Your task to perform on an android device: make emails show in primary in the gmail app Image 0: 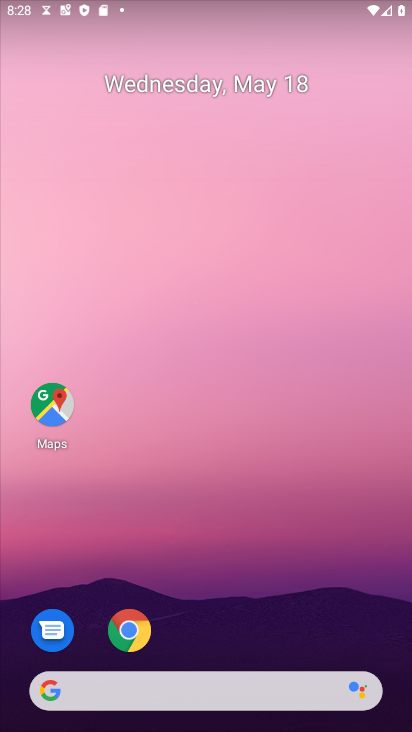
Step 0: press home button
Your task to perform on an android device: make emails show in primary in the gmail app Image 1: 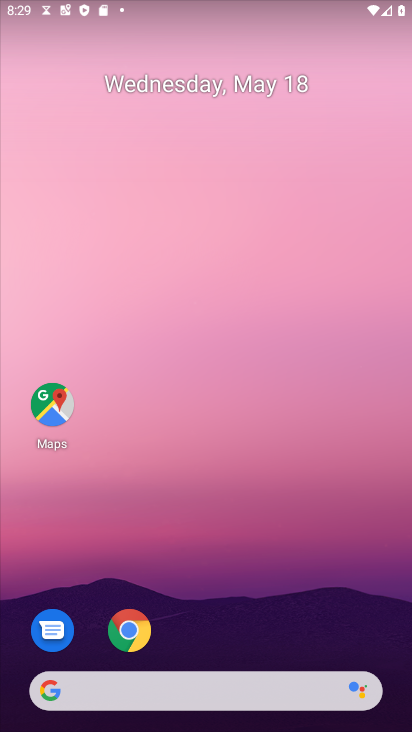
Step 1: drag from (160, 692) to (310, 183)
Your task to perform on an android device: make emails show in primary in the gmail app Image 2: 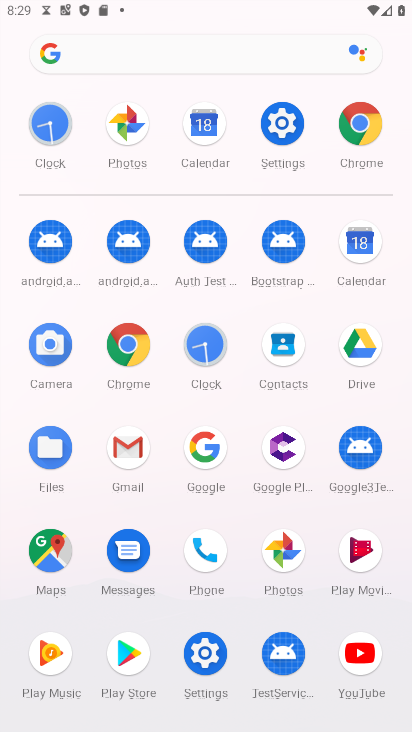
Step 2: click (128, 451)
Your task to perform on an android device: make emails show in primary in the gmail app Image 3: 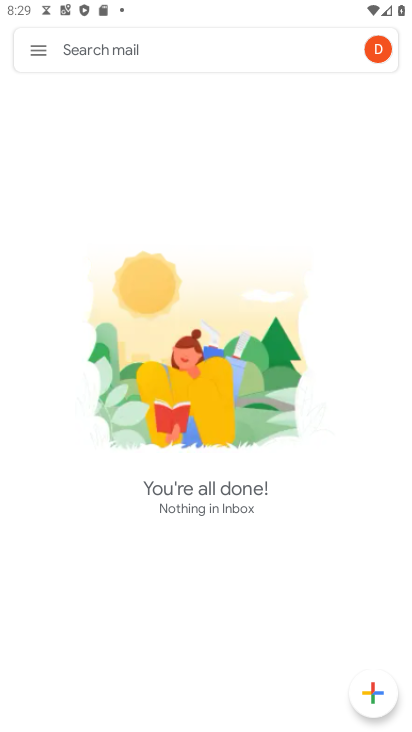
Step 3: click (40, 47)
Your task to perform on an android device: make emails show in primary in the gmail app Image 4: 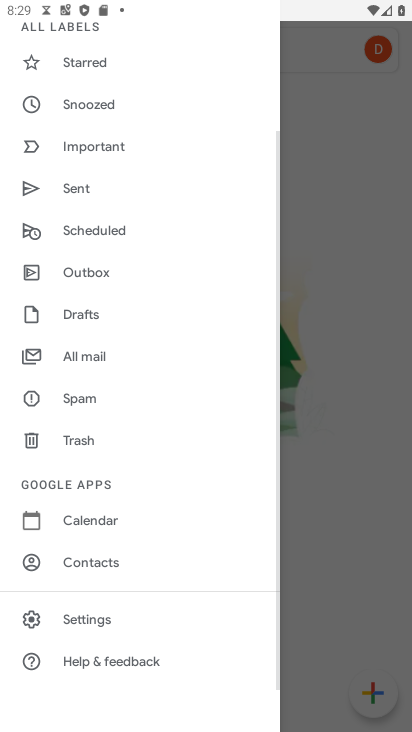
Step 4: click (101, 618)
Your task to perform on an android device: make emails show in primary in the gmail app Image 5: 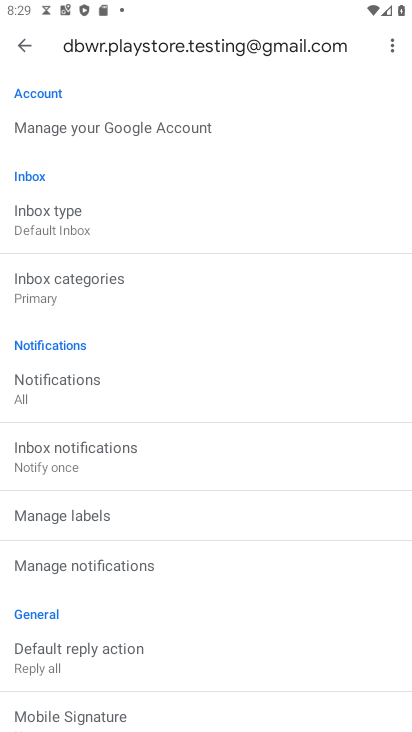
Step 5: click (74, 284)
Your task to perform on an android device: make emails show in primary in the gmail app Image 6: 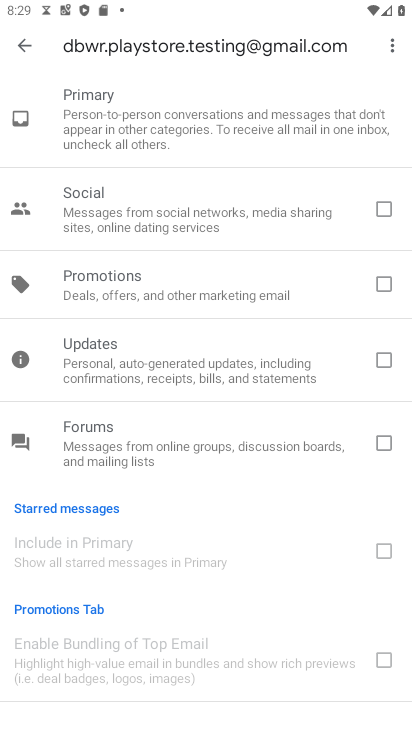
Step 6: click (22, 46)
Your task to perform on an android device: make emails show in primary in the gmail app Image 7: 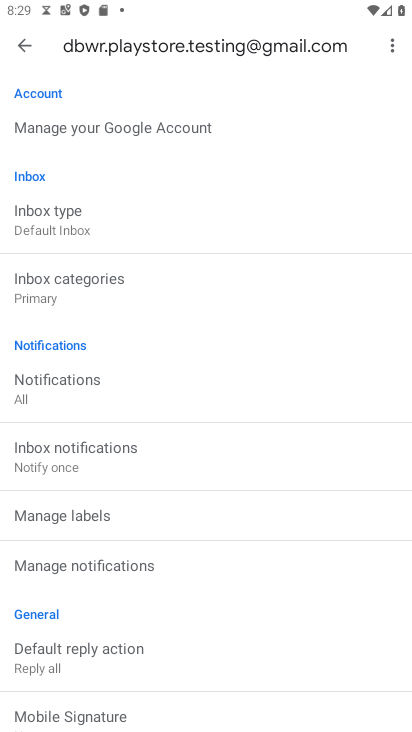
Step 7: task complete